Your task to perform on an android device: Clear all items from cart on target.com. Search for "macbook pro" on target.com, select the first entry, and add it to the cart. Image 0: 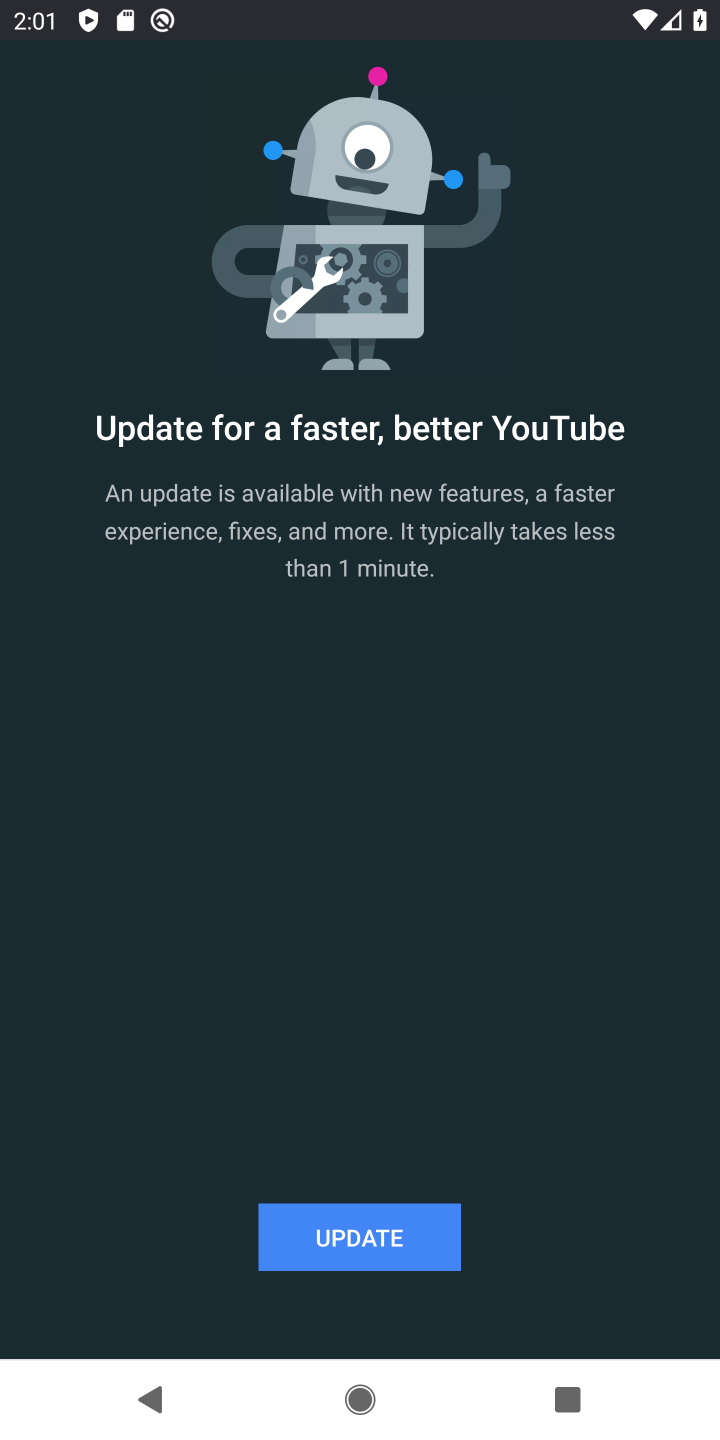
Step 0: press home button
Your task to perform on an android device: Clear all items from cart on target.com. Search for "macbook pro" on target.com, select the first entry, and add it to the cart. Image 1: 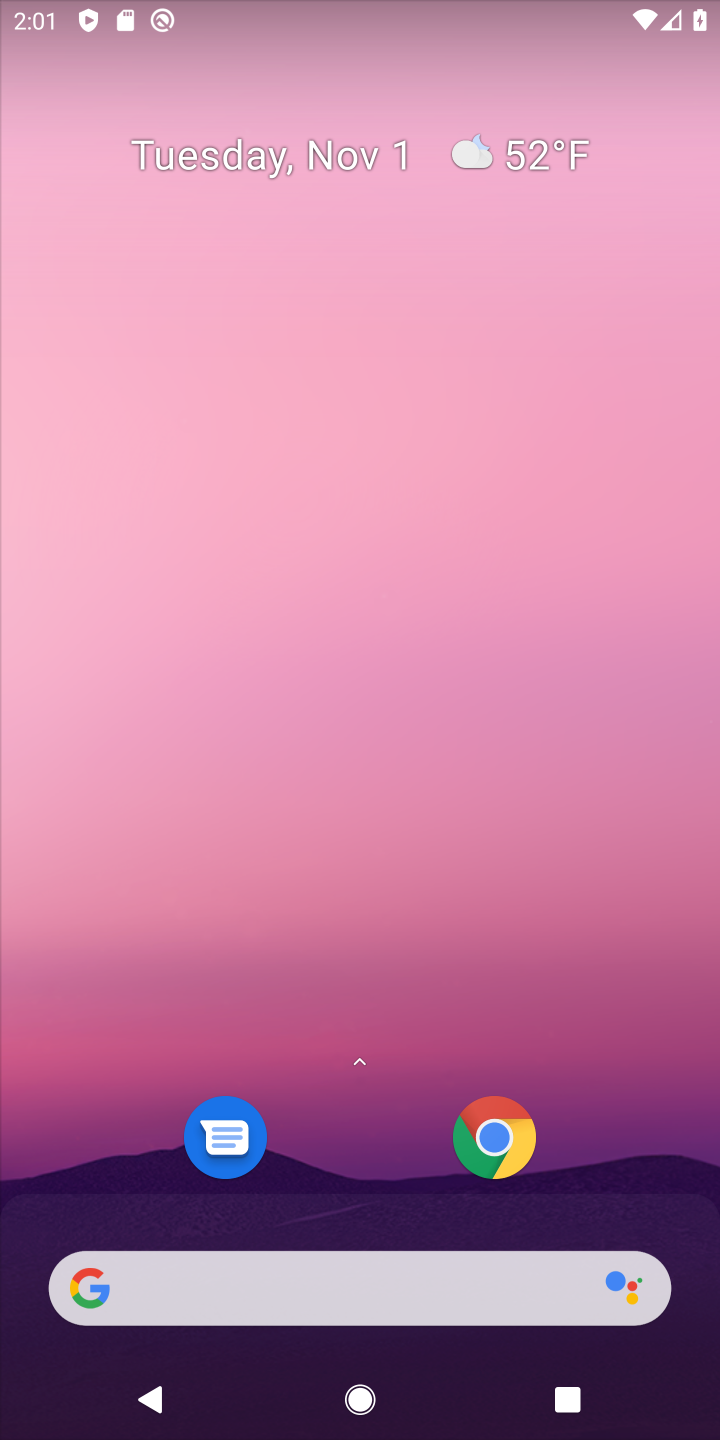
Step 1: click (484, 1316)
Your task to perform on an android device: Clear all items from cart on target.com. Search for "macbook pro" on target.com, select the first entry, and add it to the cart. Image 2: 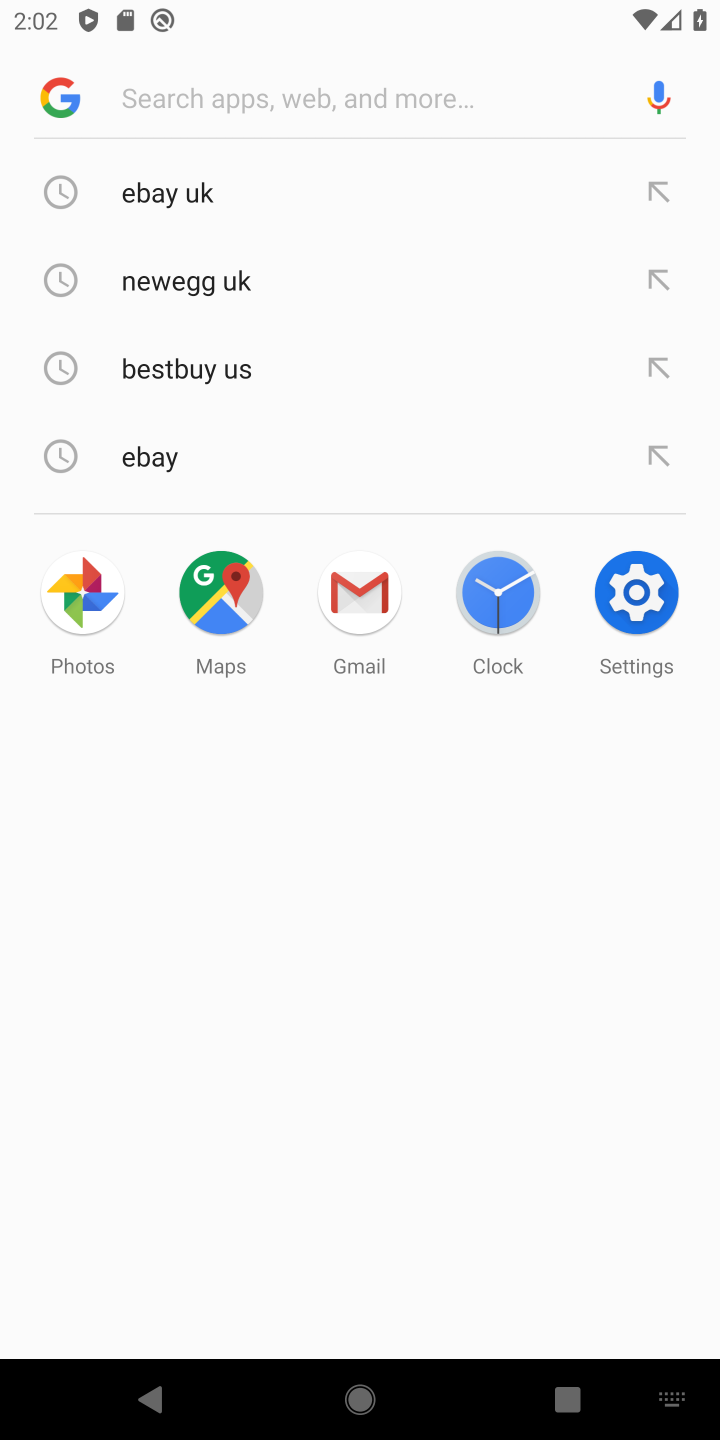
Step 2: type "macbook"
Your task to perform on an android device: Clear all items from cart on target.com. Search for "macbook pro" on target.com, select the first entry, and add it to the cart. Image 3: 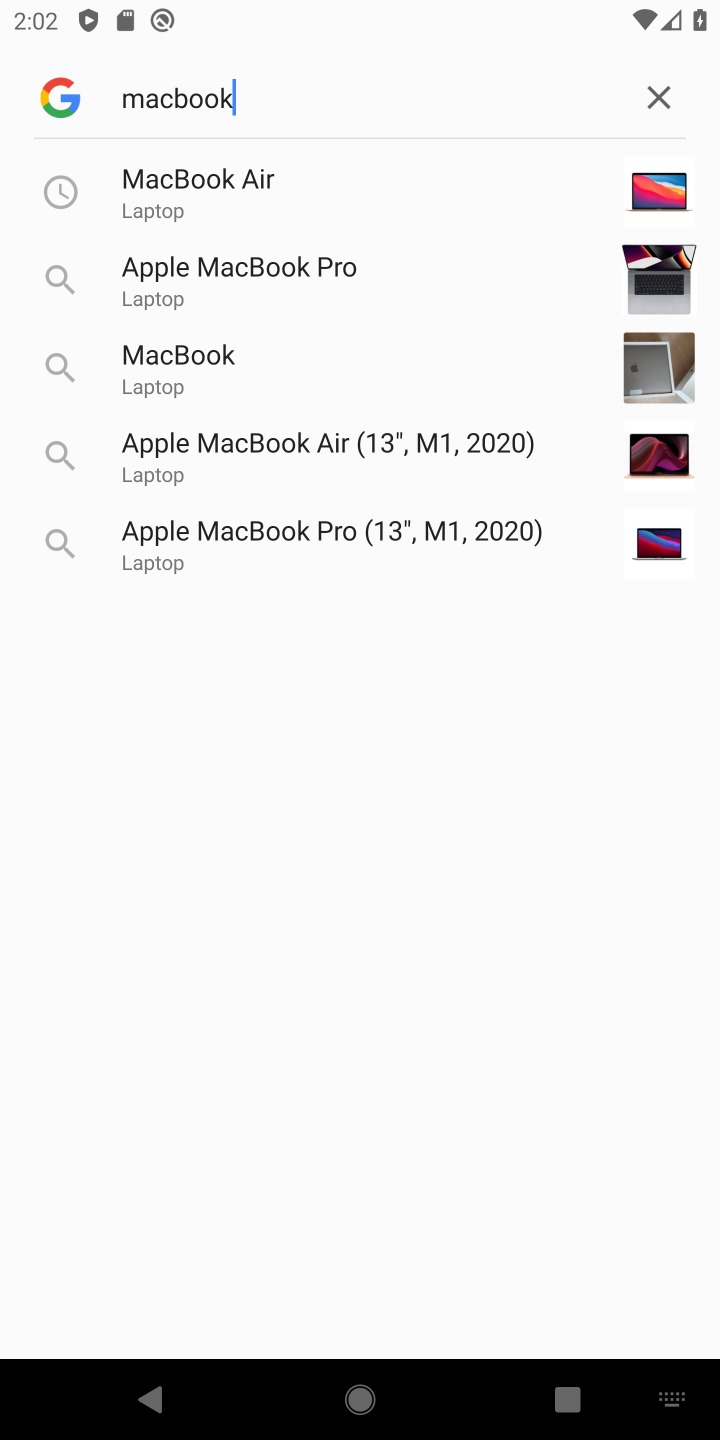
Step 3: click (286, 254)
Your task to perform on an android device: Clear all items from cart on target.com. Search for "macbook pro" on target.com, select the first entry, and add it to the cart. Image 4: 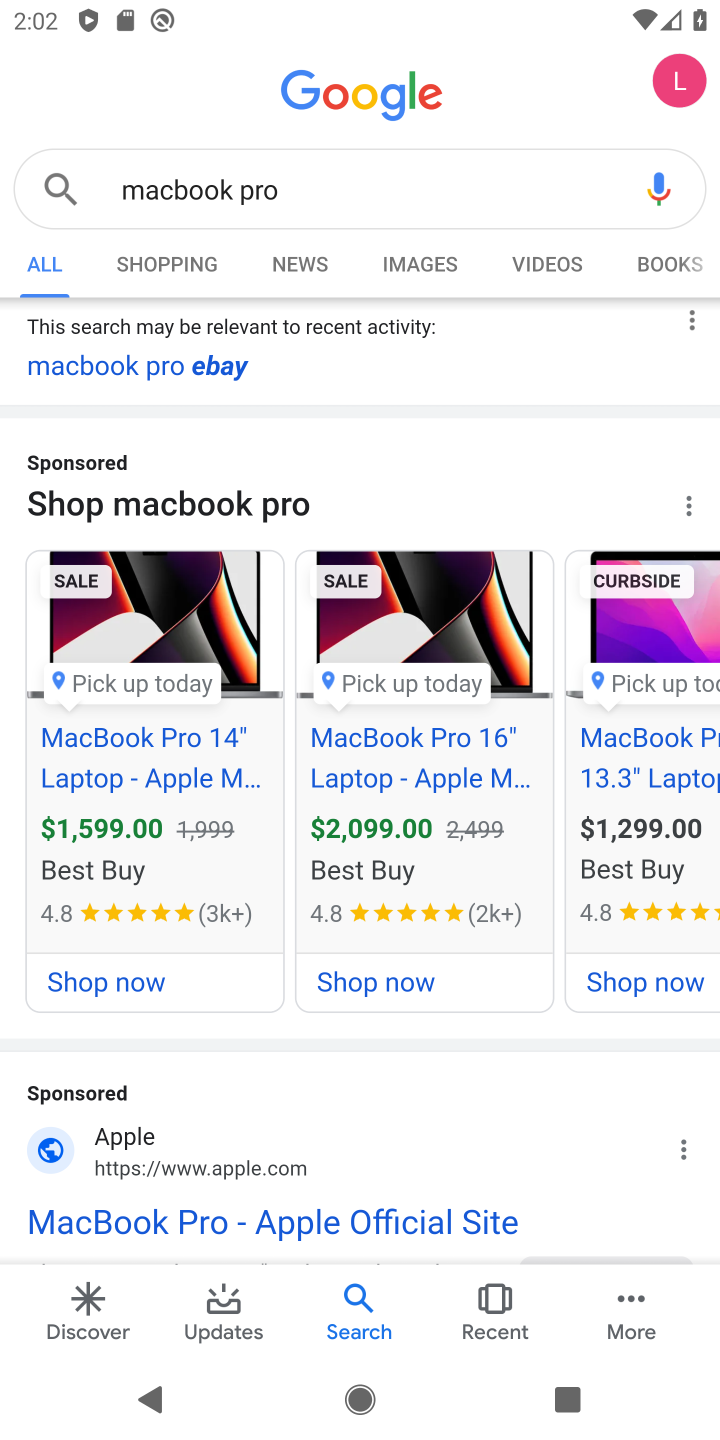
Step 4: click (108, 744)
Your task to perform on an android device: Clear all items from cart on target.com. Search for "macbook pro" on target.com, select the first entry, and add it to the cart. Image 5: 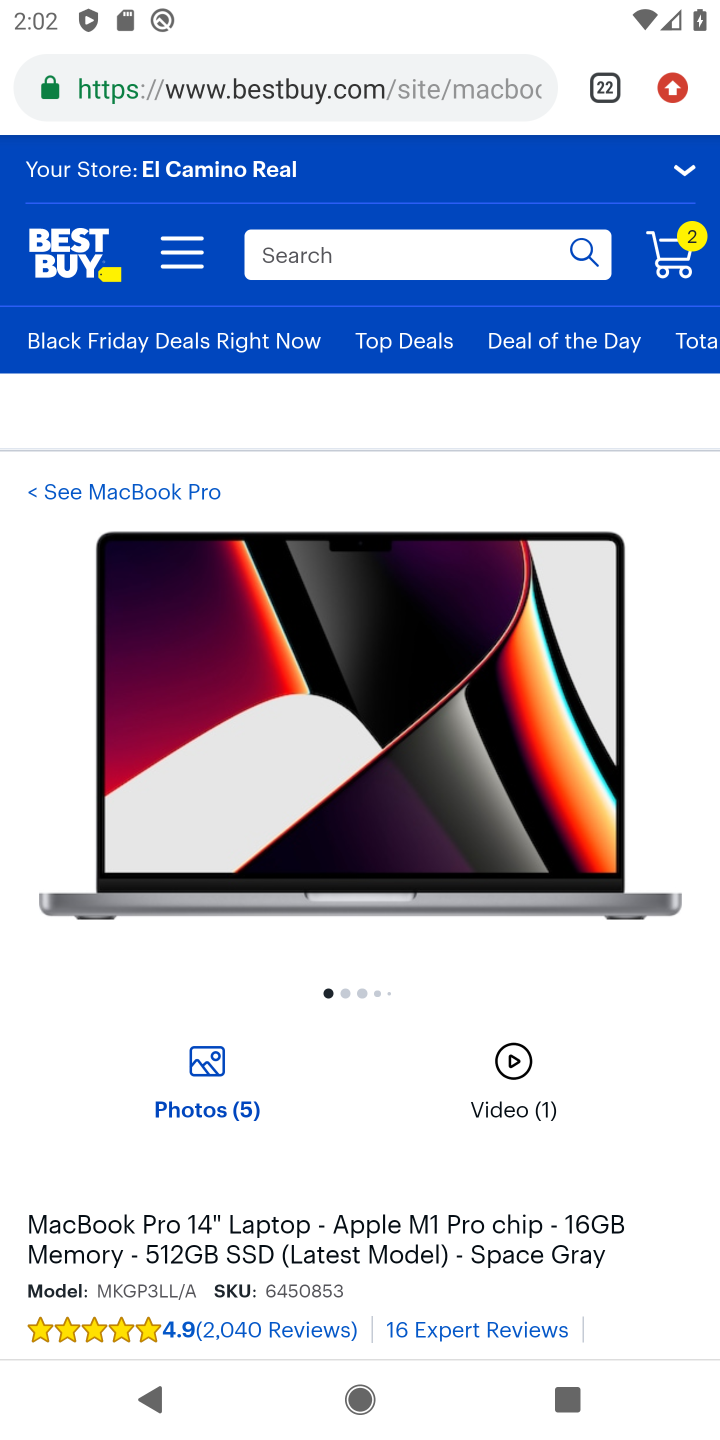
Step 5: task complete